Your task to perform on an android device: empty trash in the gmail app Image 0: 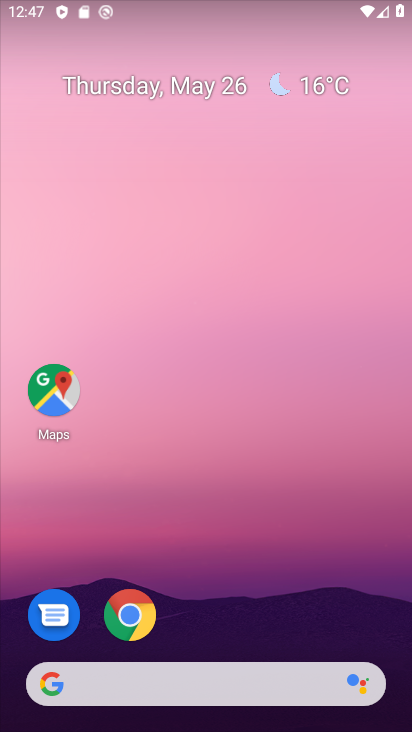
Step 0: drag from (200, 632) to (212, 26)
Your task to perform on an android device: empty trash in the gmail app Image 1: 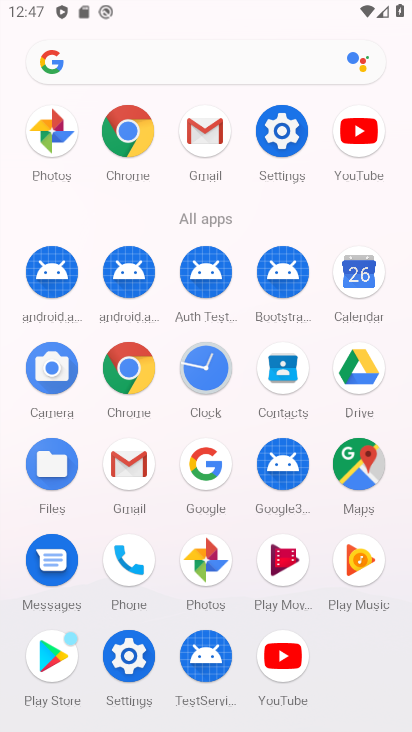
Step 1: click (125, 456)
Your task to perform on an android device: empty trash in the gmail app Image 2: 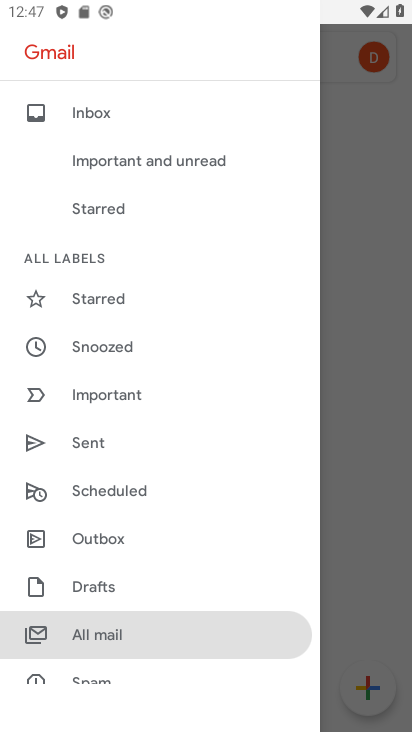
Step 2: drag from (103, 545) to (213, 169)
Your task to perform on an android device: empty trash in the gmail app Image 3: 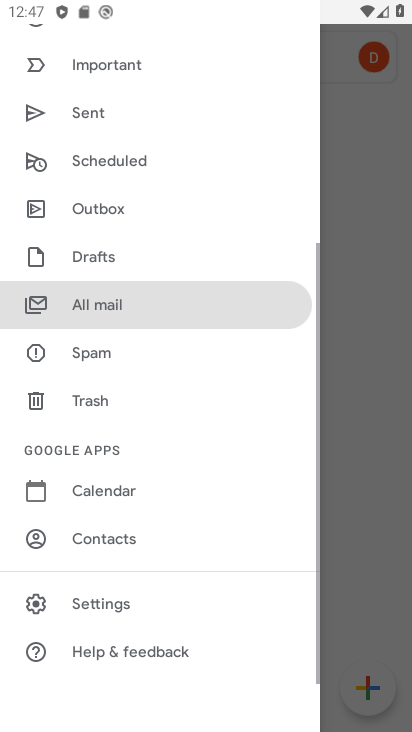
Step 3: click (129, 403)
Your task to perform on an android device: empty trash in the gmail app Image 4: 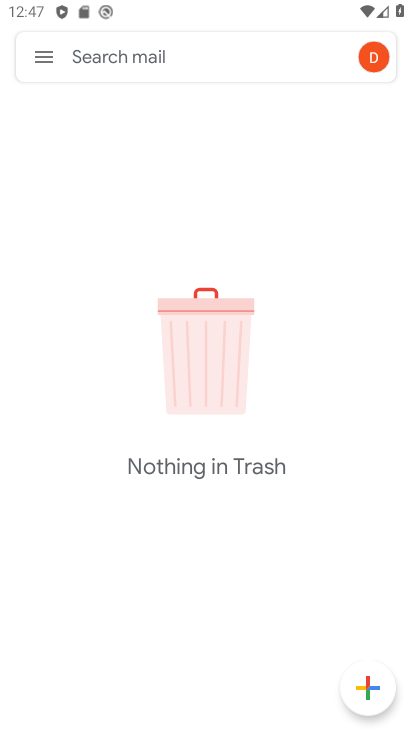
Step 4: task complete